Your task to perform on an android device: turn off priority inbox in the gmail app Image 0: 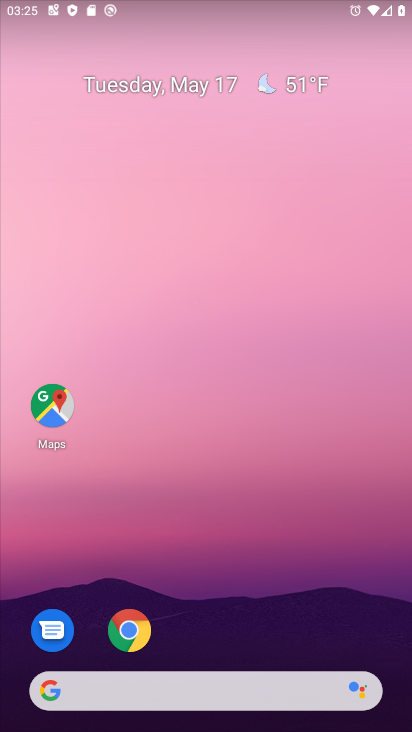
Step 0: drag from (177, 597) to (285, 70)
Your task to perform on an android device: turn off priority inbox in the gmail app Image 1: 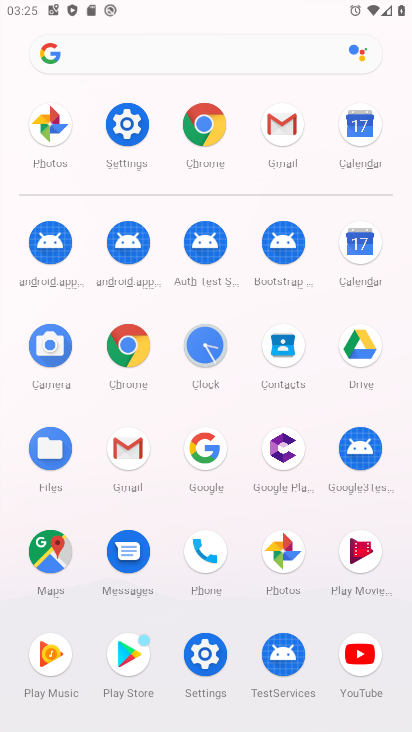
Step 1: click (288, 122)
Your task to perform on an android device: turn off priority inbox in the gmail app Image 2: 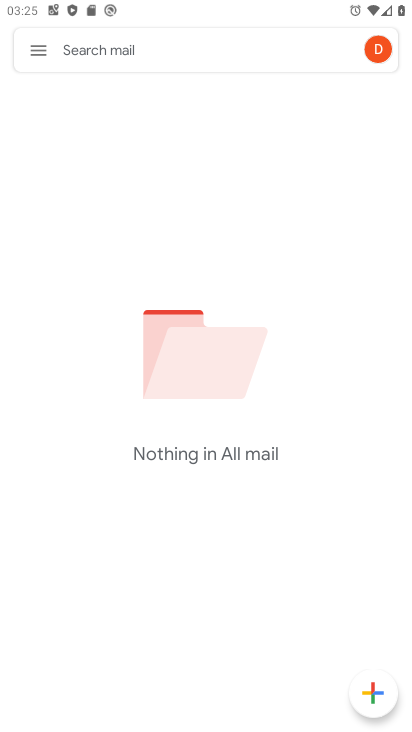
Step 2: click (62, 34)
Your task to perform on an android device: turn off priority inbox in the gmail app Image 3: 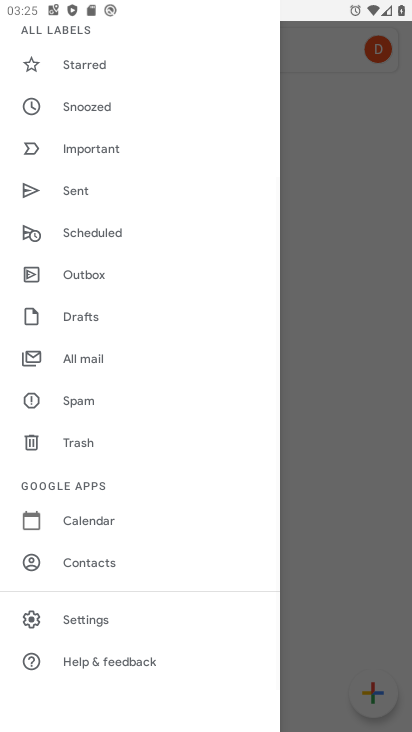
Step 3: drag from (118, 649) to (209, 116)
Your task to perform on an android device: turn off priority inbox in the gmail app Image 4: 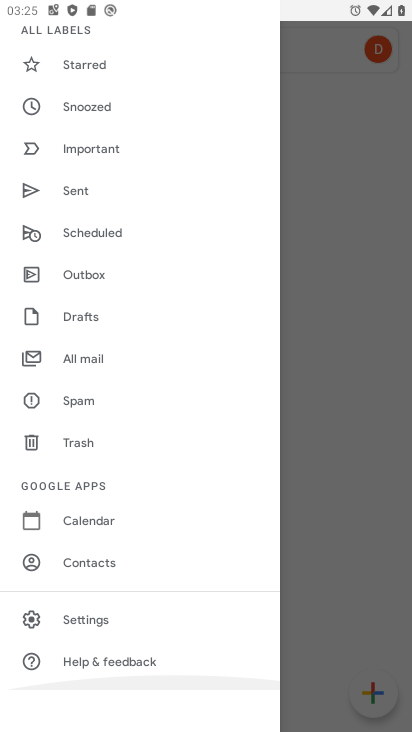
Step 4: click (86, 610)
Your task to perform on an android device: turn off priority inbox in the gmail app Image 5: 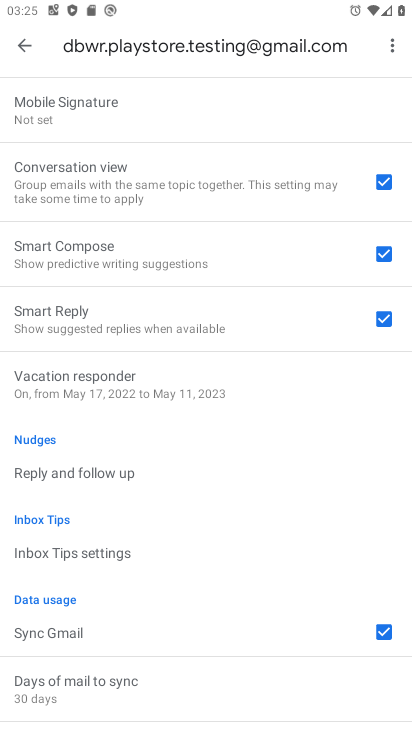
Step 5: drag from (216, 210) to (170, 718)
Your task to perform on an android device: turn off priority inbox in the gmail app Image 6: 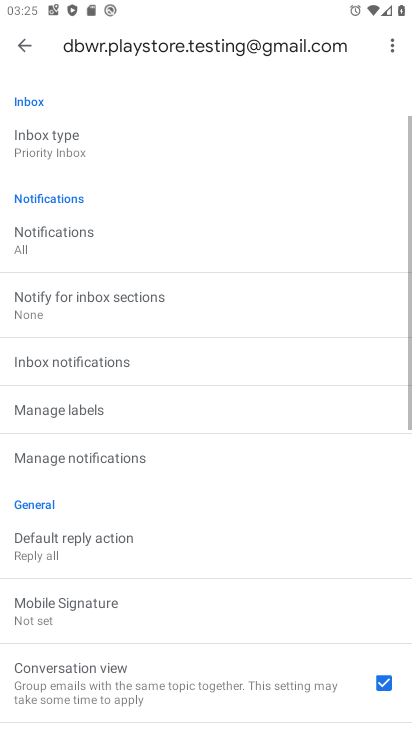
Step 6: drag from (183, 248) to (183, 653)
Your task to perform on an android device: turn off priority inbox in the gmail app Image 7: 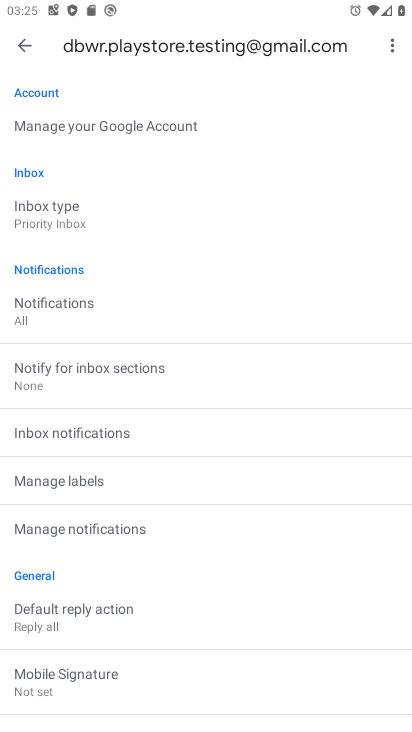
Step 7: click (52, 217)
Your task to perform on an android device: turn off priority inbox in the gmail app Image 8: 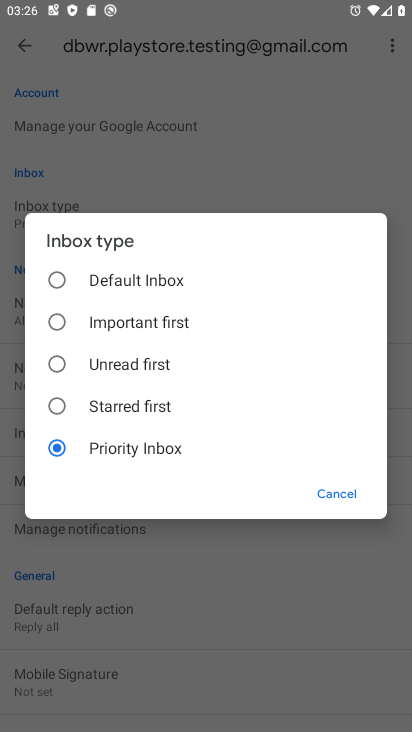
Step 8: click (54, 275)
Your task to perform on an android device: turn off priority inbox in the gmail app Image 9: 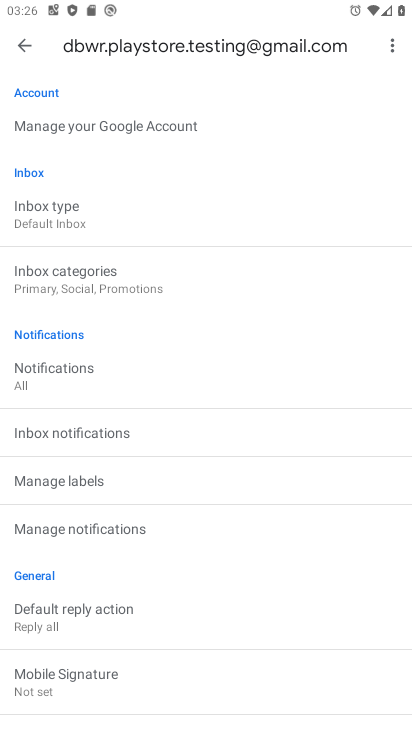
Step 9: task complete